Your task to perform on an android device: Go to calendar. Show me events next week Image 0: 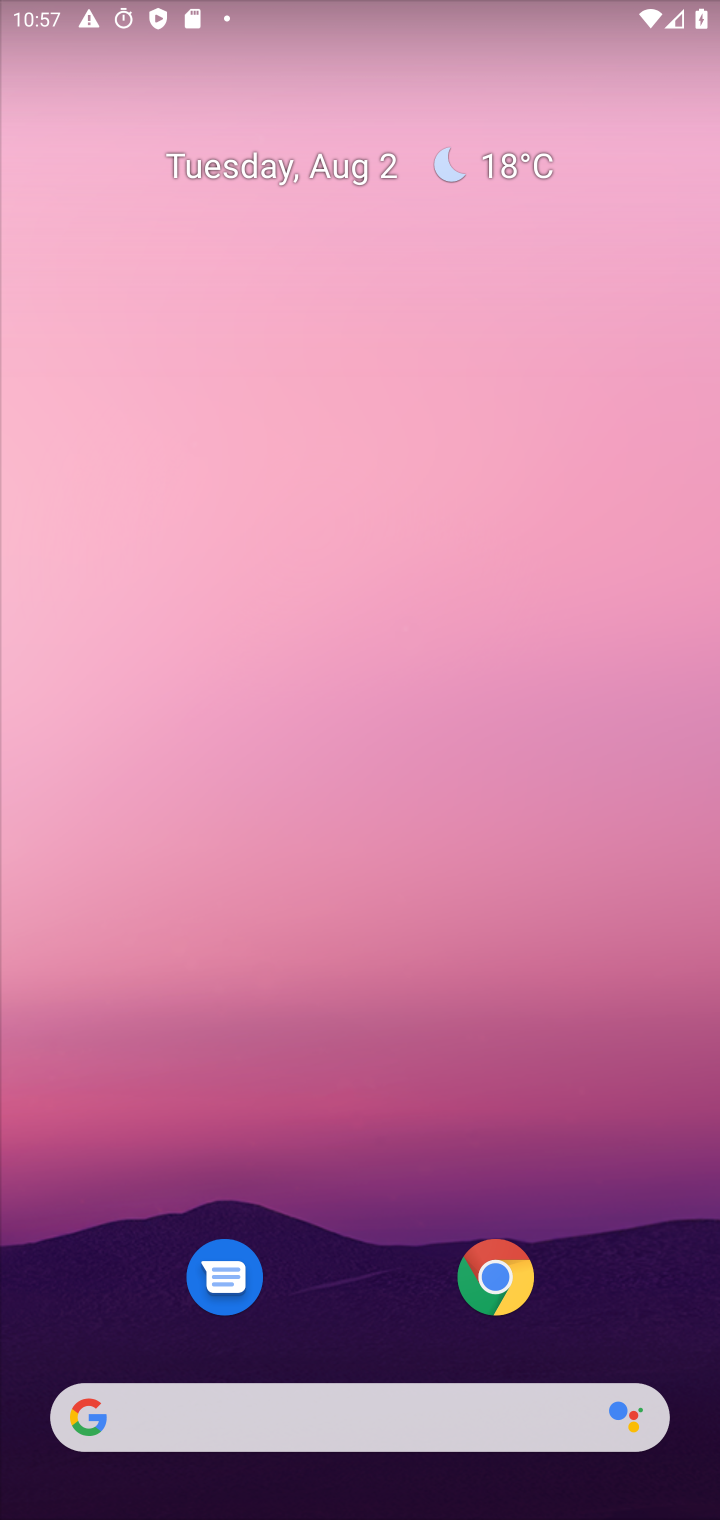
Step 0: press home button
Your task to perform on an android device: Go to calendar. Show me events next week Image 1: 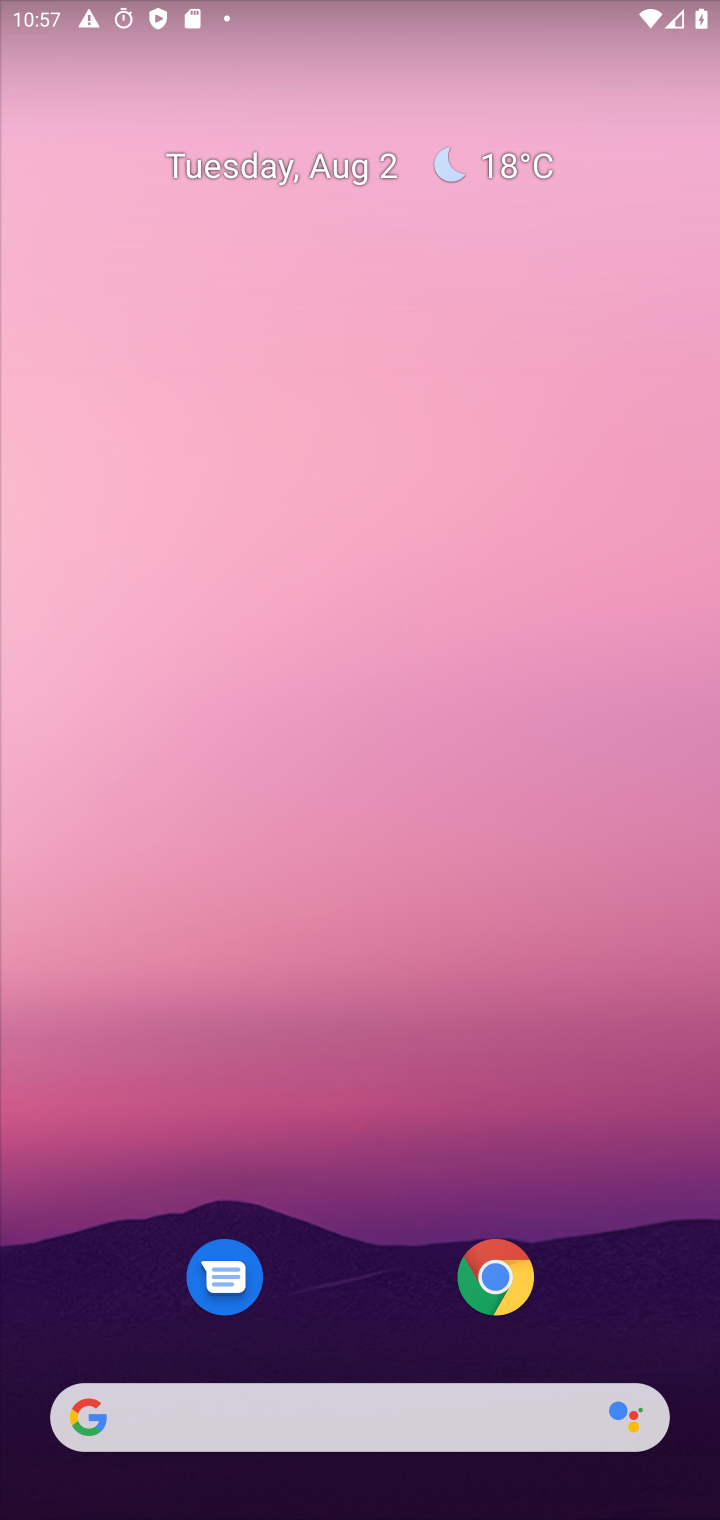
Step 1: drag from (349, 1257) to (349, 250)
Your task to perform on an android device: Go to calendar. Show me events next week Image 2: 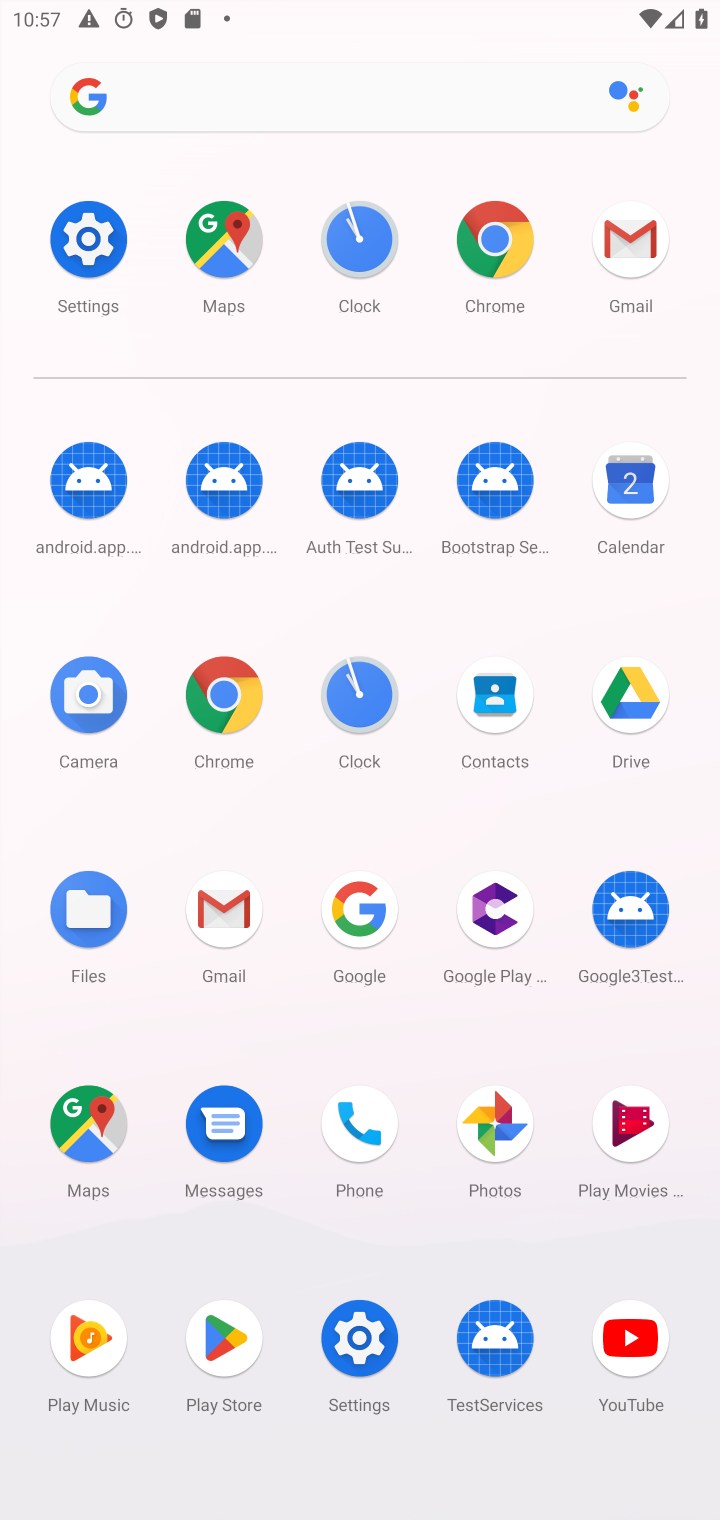
Step 2: click (645, 493)
Your task to perform on an android device: Go to calendar. Show me events next week Image 3: 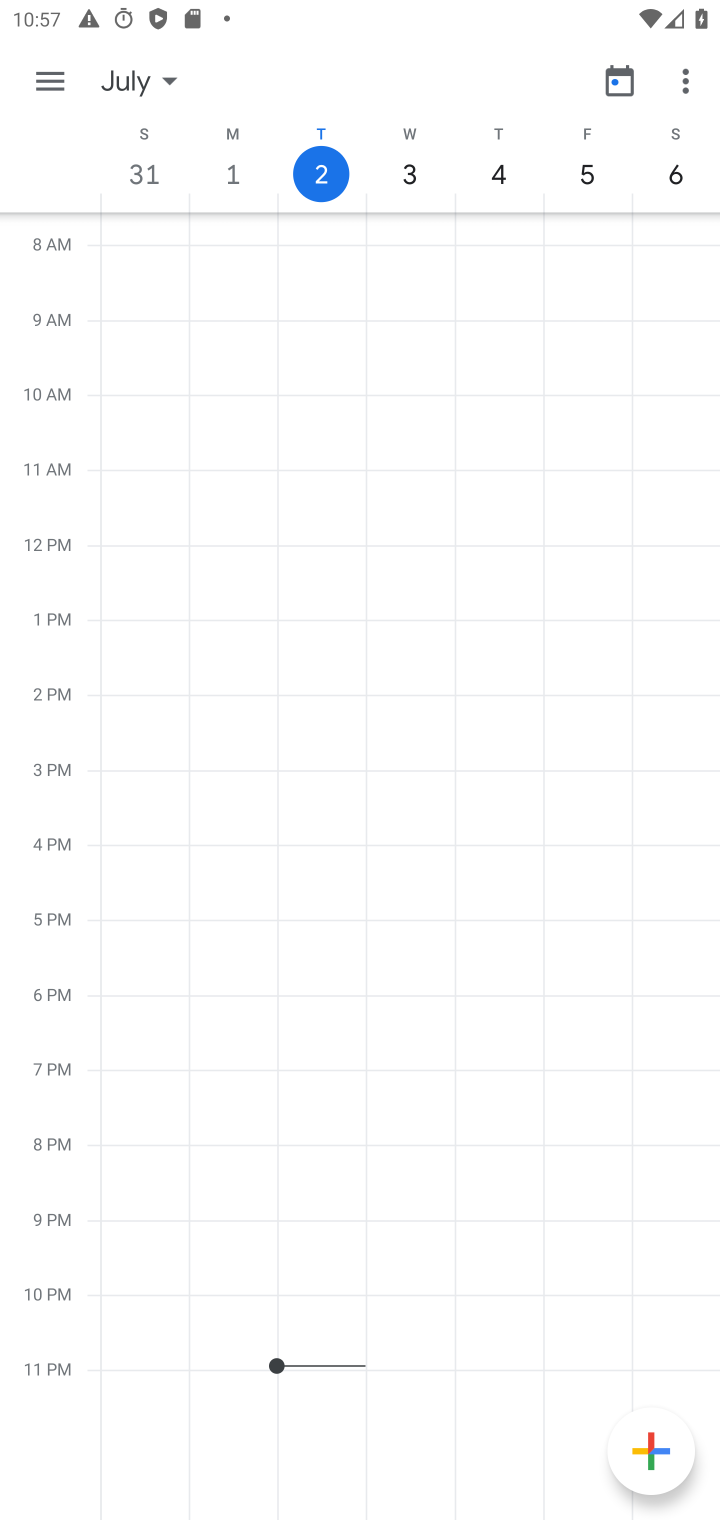
Step 3: drag from (628, 179) to (0, 174)
Your task to perform on an android device: Go to calendar. Show me events next week Image 4: 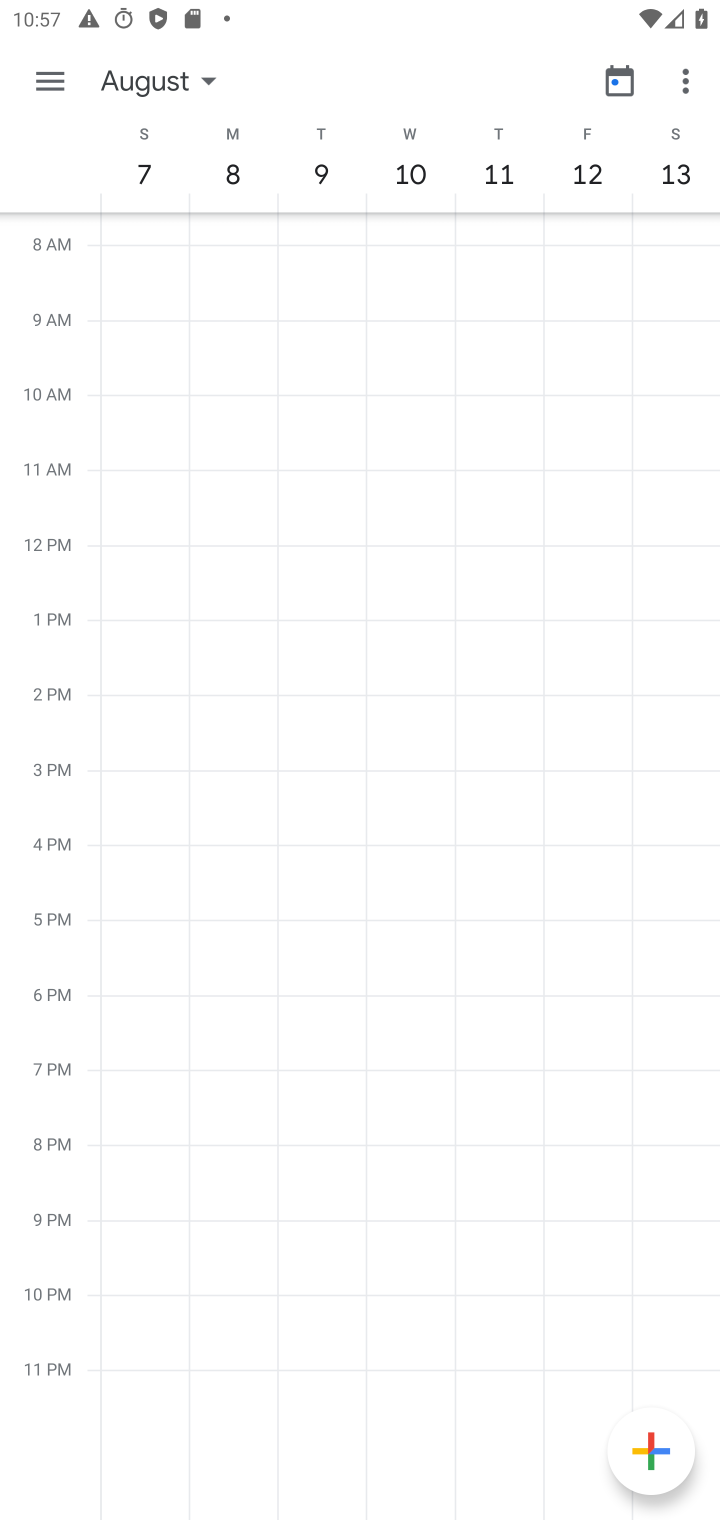
Step 4: click (43, 72)
Your task to perform on an android device: Go to calendar. Show me events next week Image 5: 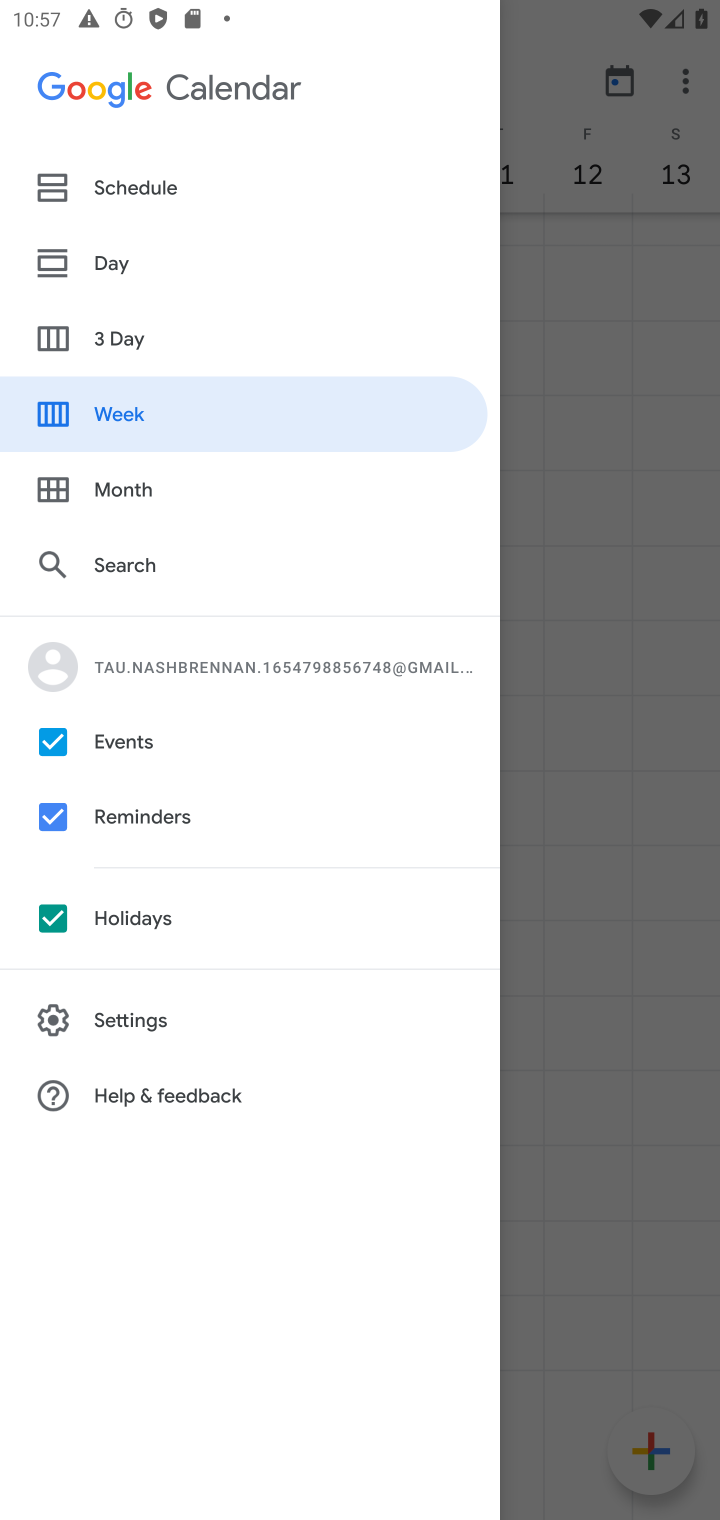
Step 5: click (108, 185)
Your task to perform on an android device: Go to calendar. Show me events next week Image 6: 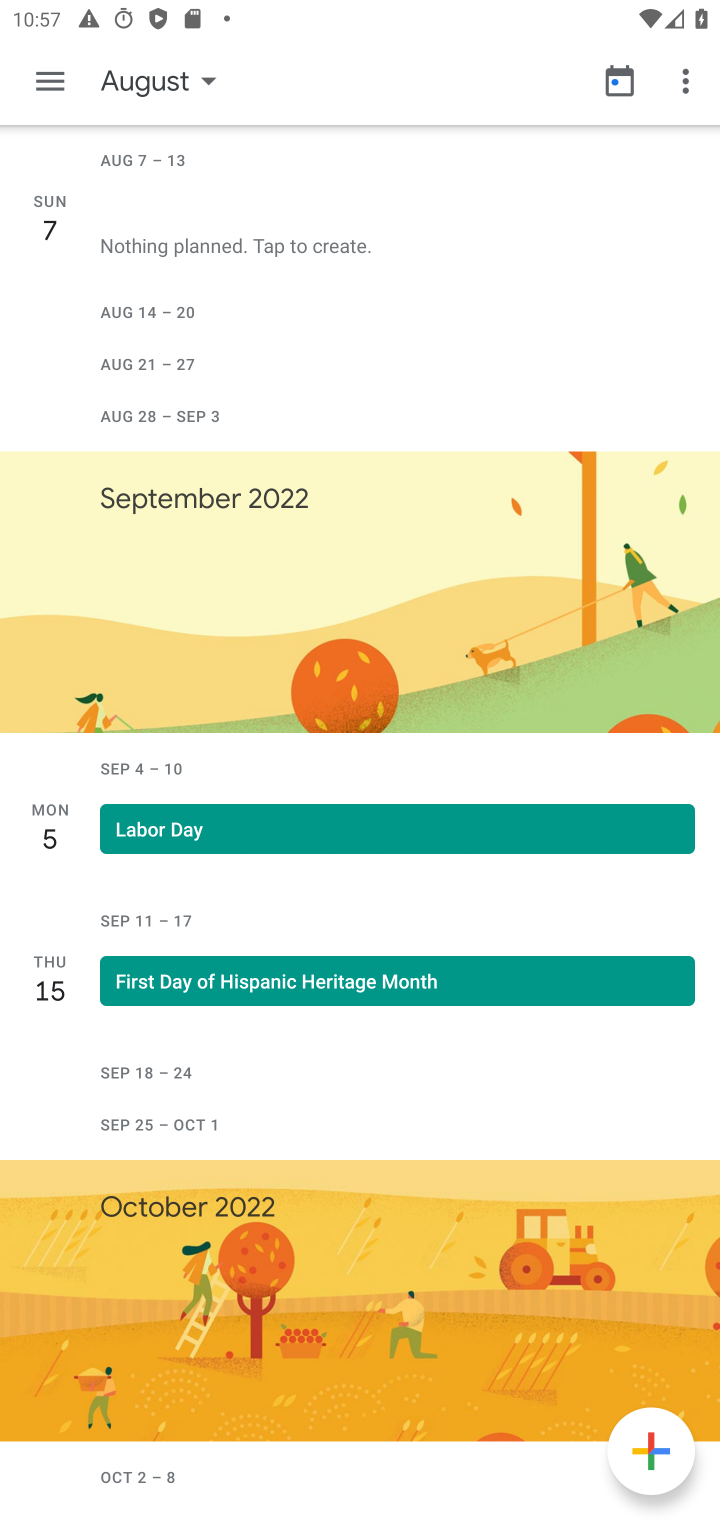
Step 6: task complete